Your task to perform on an android device: toggle show notifications on the lock screen Image 0: 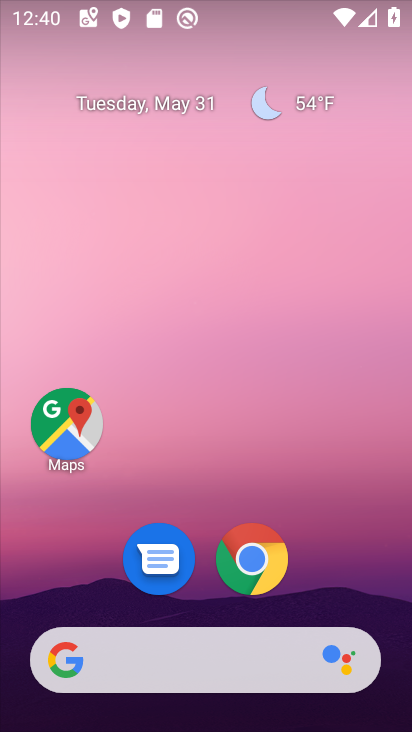
Step 0: drag from (114, 718) to (147, 62)
Your task to perform on an android device: toggle show notifications on the lock screen Image 1: 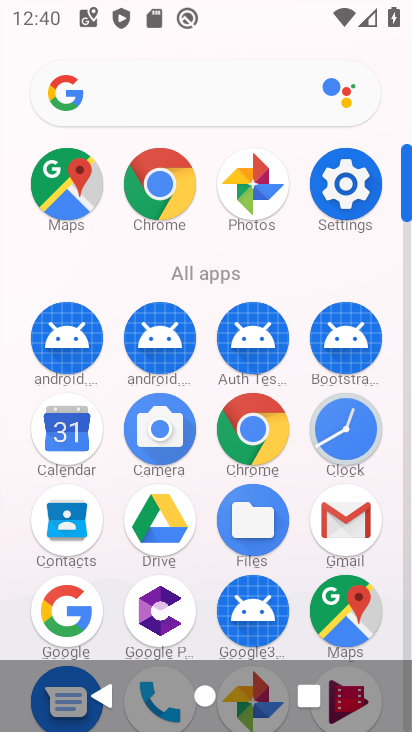
Step 1: click (348, 205)
Your task to perform on an android device: toggle show notifications on the lock screen Image 2: 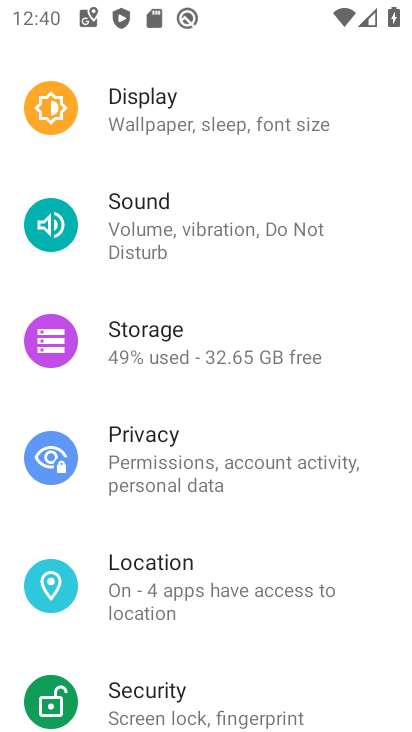
Step 2: drag from (246, 177) to (215, 615)
Your task to perform on an android device: toggle show notifications on the lock screen Image 3: 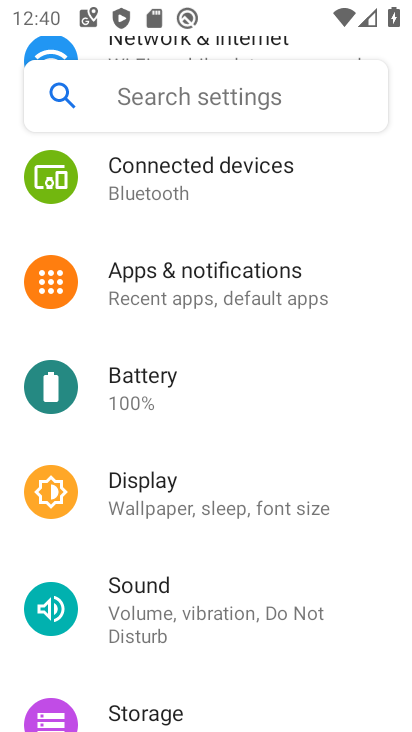
Step 3: click (214, 311)
Your task to perform on an android device: toggle show notifications on the lock screen Image 4: 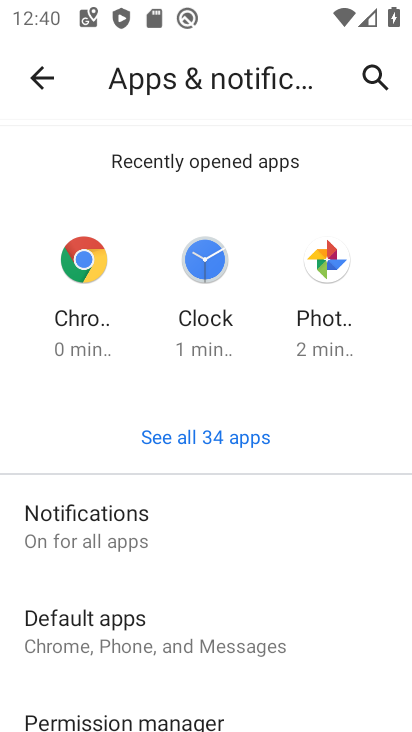
Step 4: click (125, 542)
Your task to perform on an android device: toggle show notifications on the lock screen Image 5: 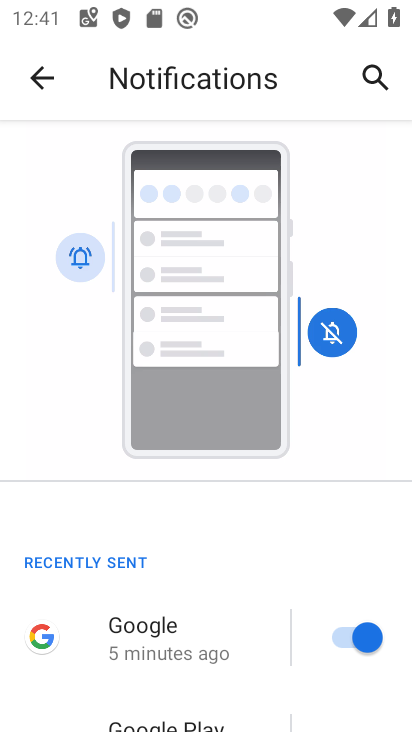
Step 5: drag from (250, 637) to (223, 222)
Your task to perform on an android device: toggle show notifications on the lock screen Image 6: 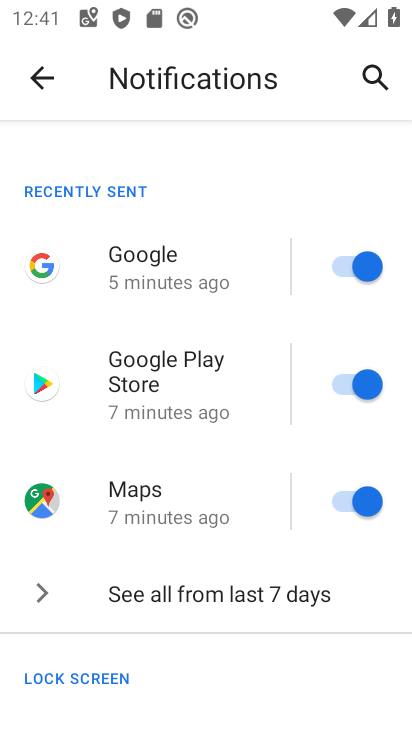
Step 6: drag from (200, 664) to (167, 219)
Your task to perform on an android device: toggle show notifications on the lock screen Image 7: 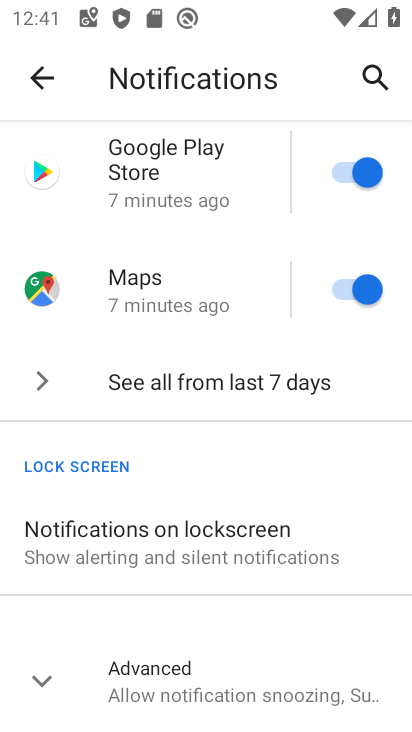
Step 7: click (158, 538)
Your task to perform on an android device: toggle show notifications on the lock screen Image 8: 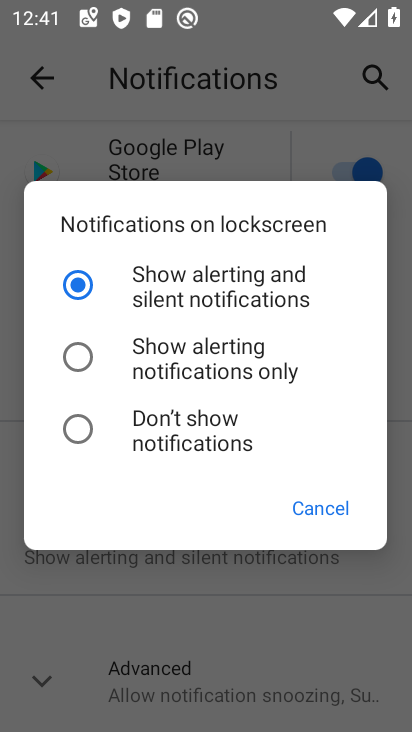
Step 8: task complete